Your task to perform on an android device: see creations saved in the google photos Image 0: 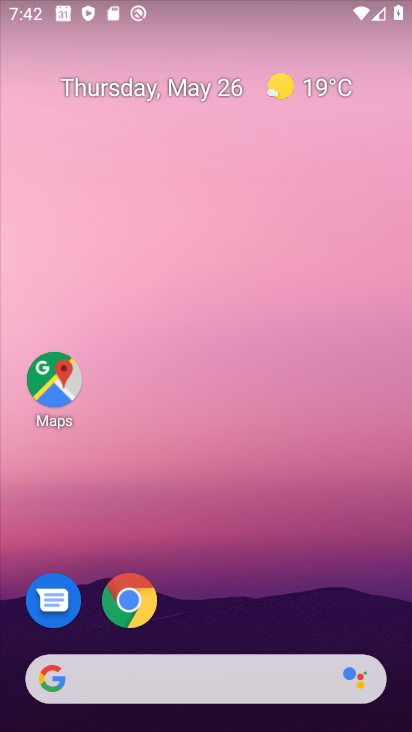
Step 0: drag from (228, 670) to (138, 55)
Your task to perform on an android device: see creations saved in the google photos Image 1: 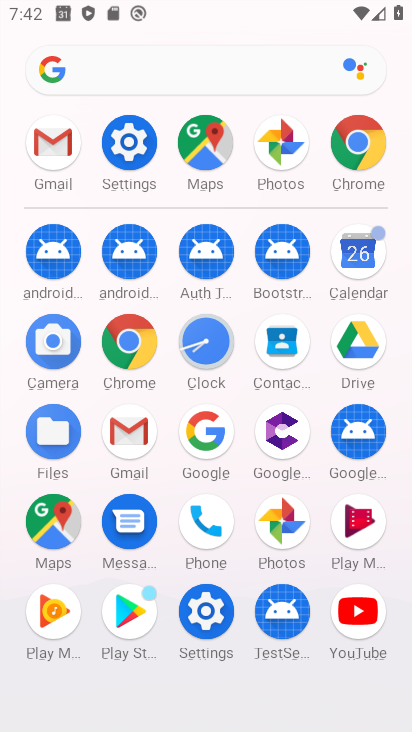
Step 1: click (283, 518)
Your task to perform on an android device: see creations saved in the google photos Image 2: 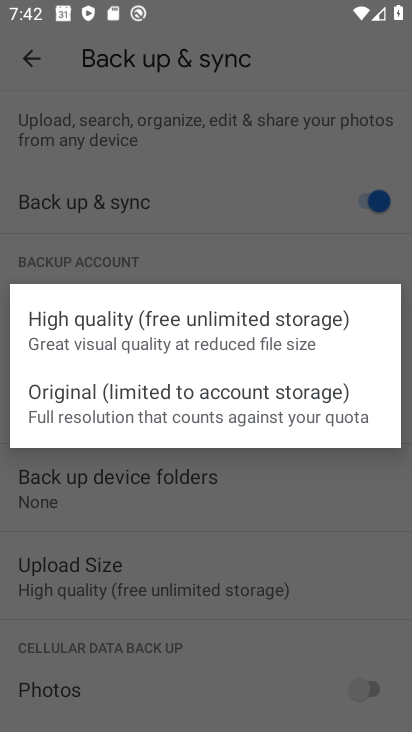
Step 2: click (205, 194)
Your task to perform on an android device: see creations saved in the google photos Image 3: 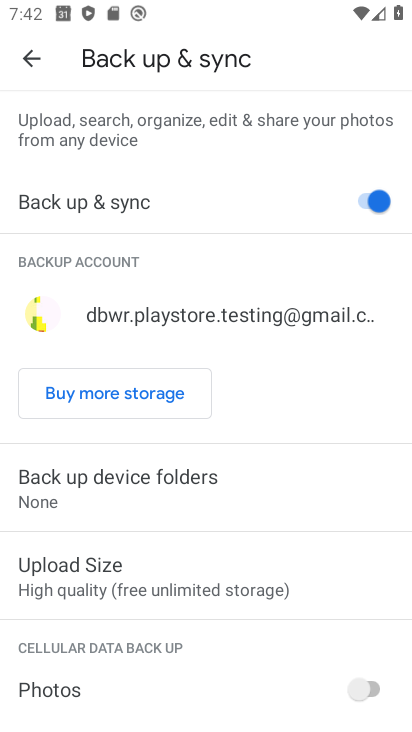
Step 3: click (35, 53)
Your task to perform on an android device: see creations saved in the google photos Image 4: 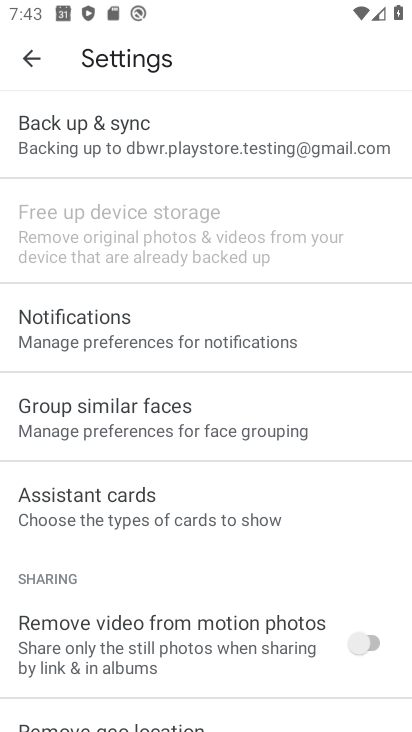
Step 4: click (31, 62)
Your task to perform on an android device: see creations saved in the google photos Image 5: 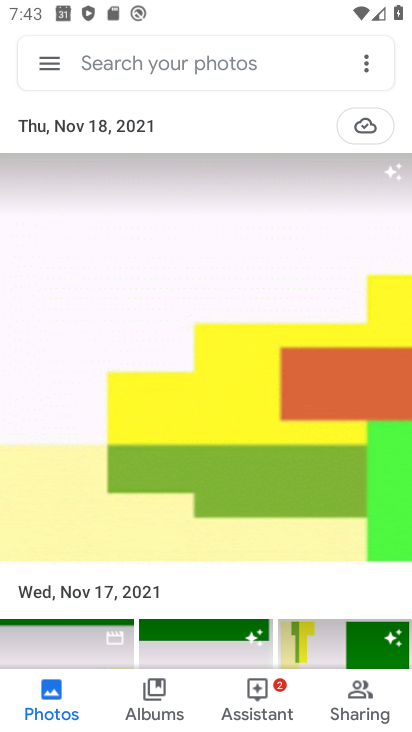
Step 5: click (222, 389)
Your task to perform on an android device: see creations saved in the google photos Image 6: 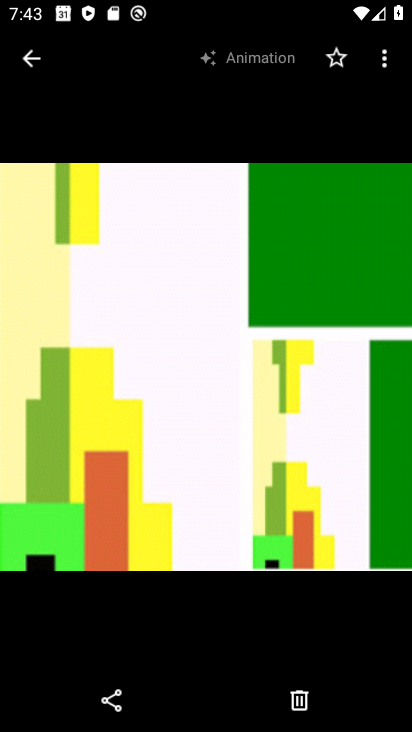
Step 6: click (381, 60)
Your task to perform on an android device: see creations saved in the google photos Image 7: 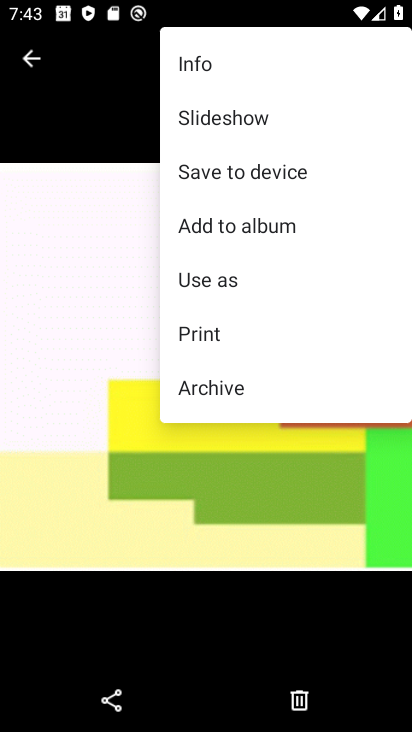
Step 7: click (267, 168)
Your task to perform on an android device: see creations saved in the google photos Image 8: 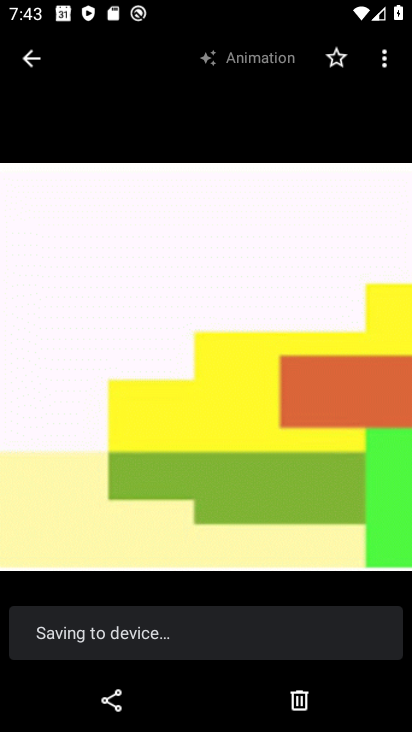
Step 8: task complete